Your task to perform on an android device: turn off sleep mode Image 0: 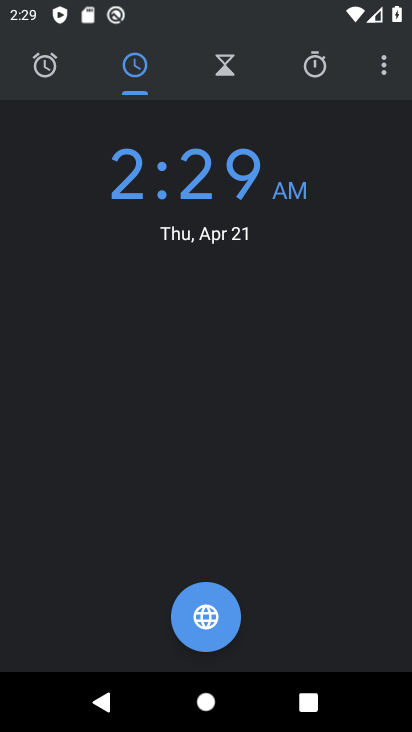
Step 0: press home button
Your task to perform on an android device: turn off sleep mode Image 1: 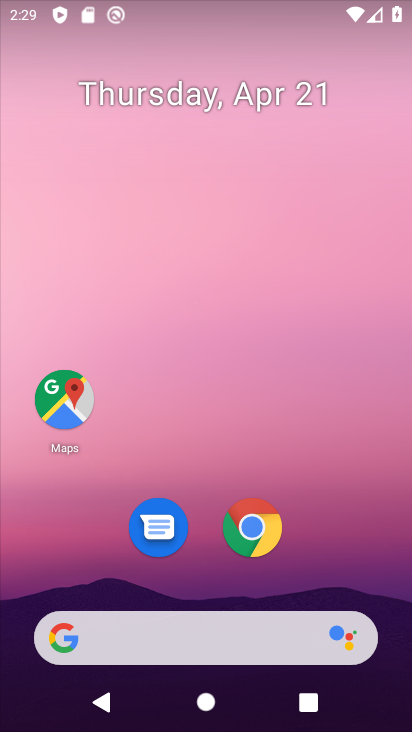
Step 1: drag from (180, 603) to (252, 132)
Your task to perform on an android device: turn off sleep mode Image 2: 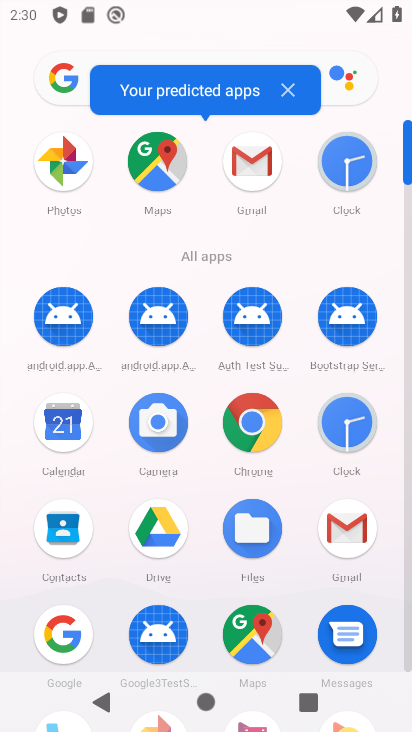
Step 2: drag from (200, 505) to (210, 294)
Your task to perform on an android device: turn off sleep mode Image 3: 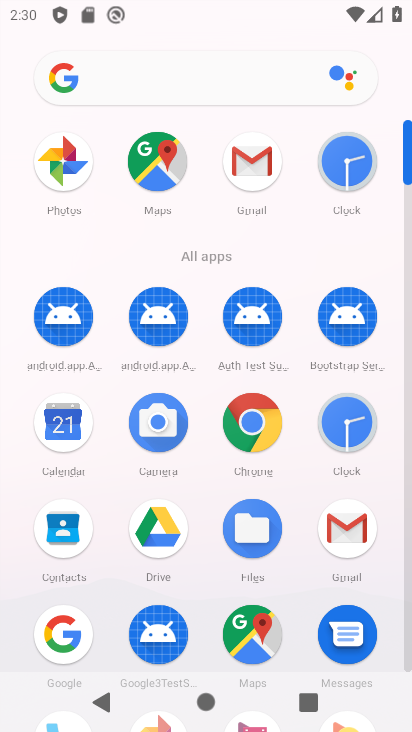
Step 3: drag from (216, 632) to (220, 171)
Your task to perform on an android device: turn off sleep mode Image 4: 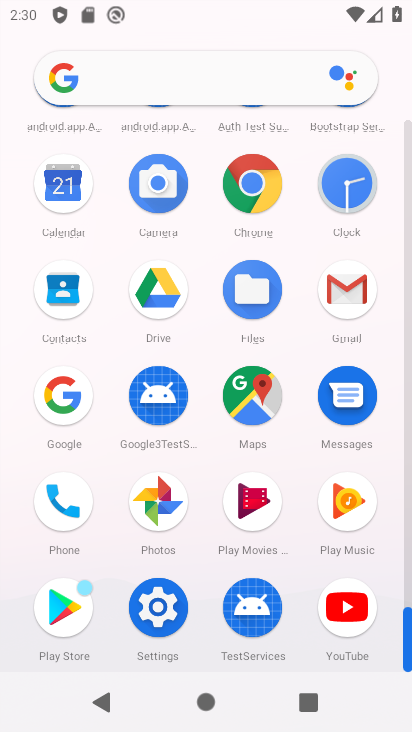
Step 4: click (152, 611)
Your task to perform on an android device: turn off sleep mode Image 5: 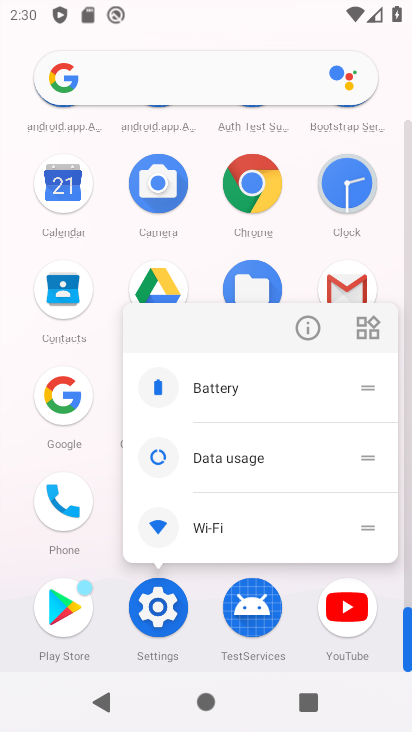
Step 5: click (158, 612)
Your task to perform on an android device: turn off sleep mode Image 6: 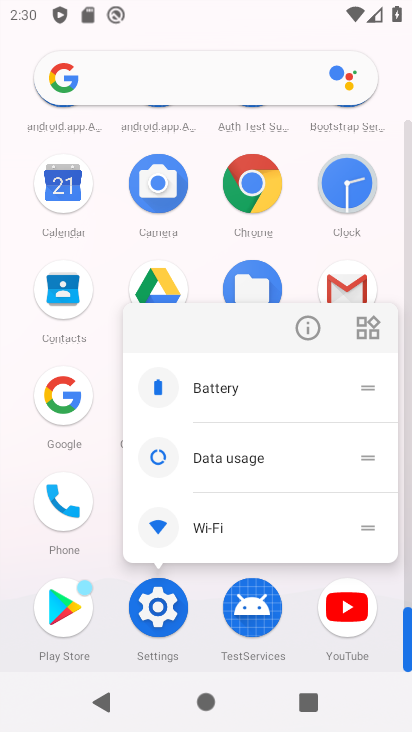
Step 6: click (158, 612)
Your task to perform on an android device: turn off sleep mode Image 7: 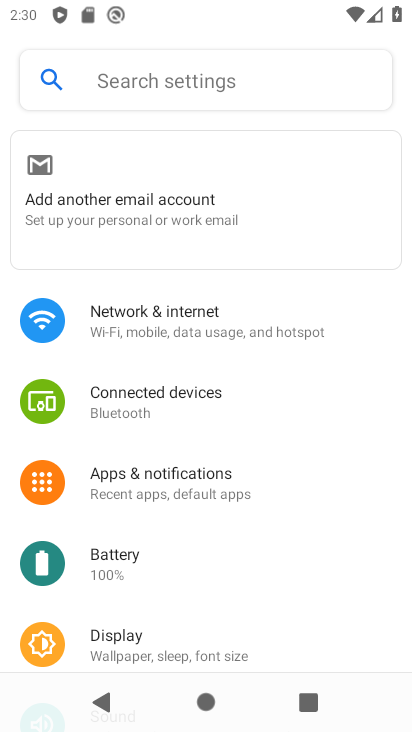
Step 7: click (180, 649)
Your task to perform on an android device: turn off sleep mode Image 8: 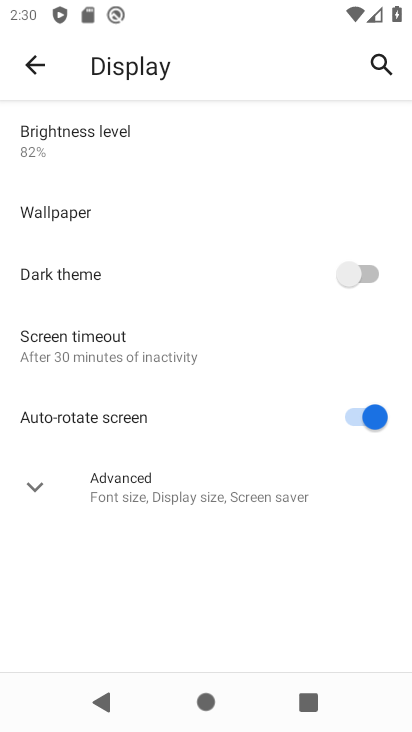
Step 8: click (84, 345)
Your task to perform on an android device: turn off sleep mode Image 9: 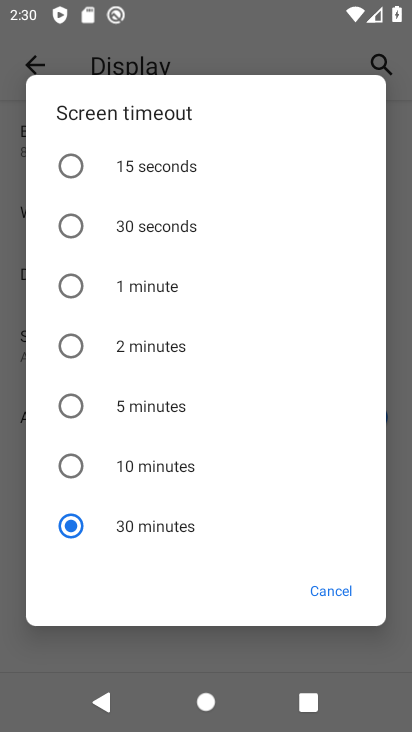
Step 9: click (73, 164)
Your task to perform on an android device: turn off sleep mode Image 10: 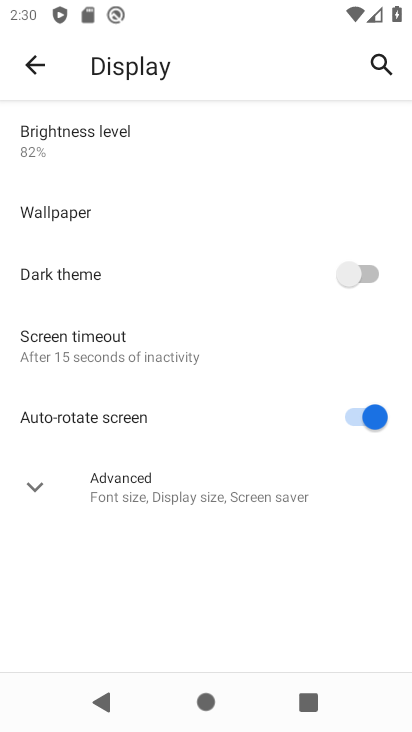
Step 10: task complete